Your task to perform on an android device: Open calendar and show me the second week of next month Image 0: 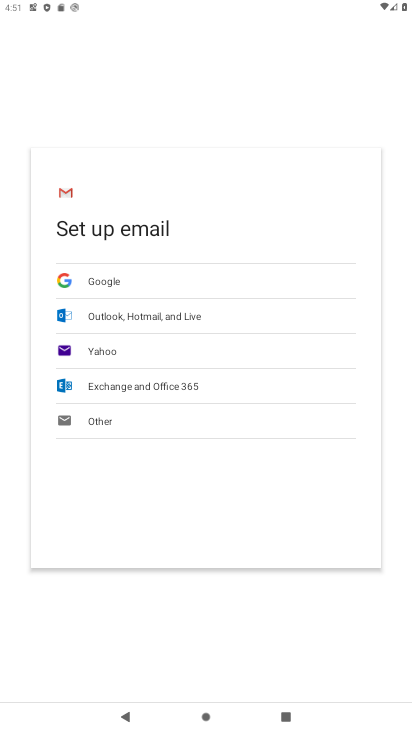
Step 0: press home button
Your task to perform on an android device: Open calendar and show me the second week of next month Image 1: 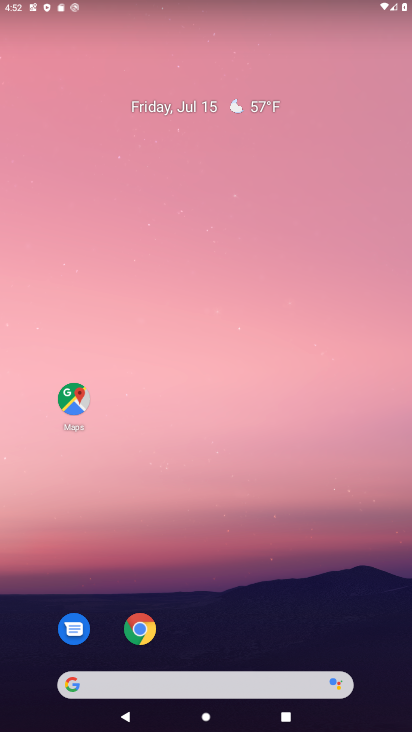
Step 1: drag from (237, 657) to (333, 2)
Your task to perform on an android device: Open calendar and show me the second week of next month Image 2: 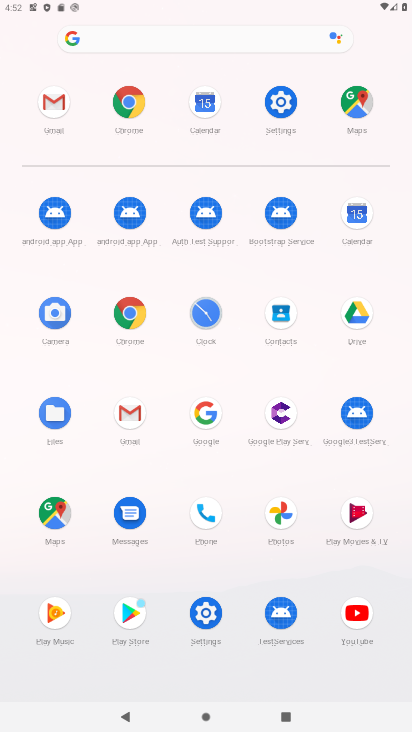
Step 2: click (358, 216)
Your task to perform on an android device: Open calendar and show me the second week of next month Image 3: 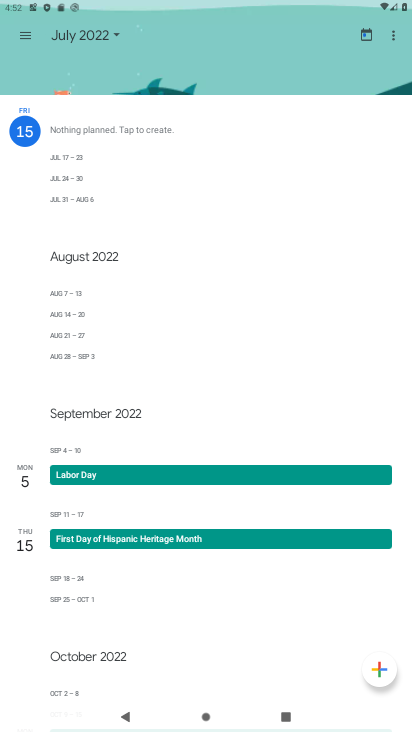
Step 3: click (108, 39)
Your task to perform on an android device: Open calendar and show me the second week of next month Image 4: 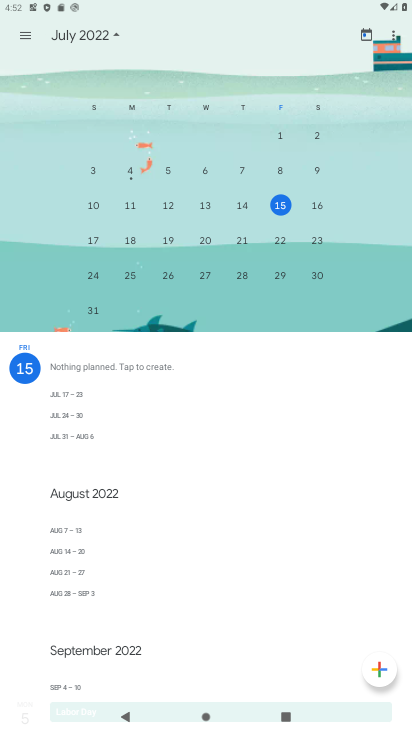
Step 4: drag from (352, 222) to (4, 171)
Your task to perform on an android device: Open calendar and show me the second week of next month Image 5: 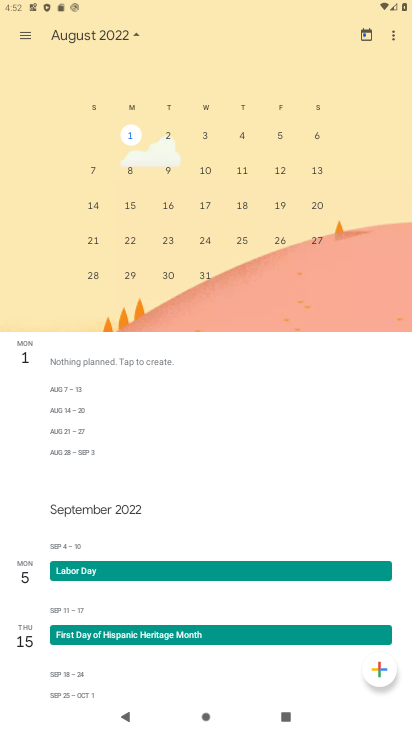
Step 5: click (128, 172)
Your task to perform on an android device: Open calendar and show me the second week of next month Image 6: 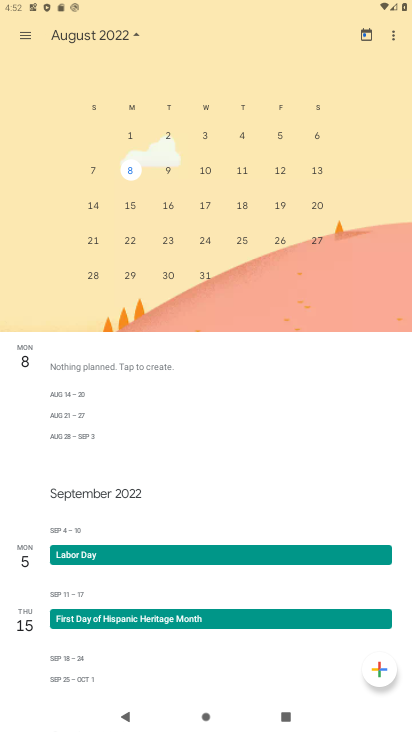
Step 6: click (173, 167)
Your task to perform on an android device: Open calendar and show me the second week of next month Image 7: 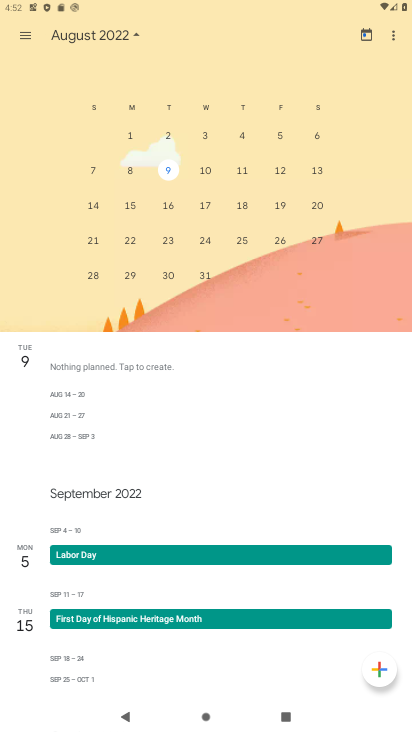
Step 7: click (210, 173)
Your task to perform on an android device: Open calendar and show me the second week of next month Image 8: 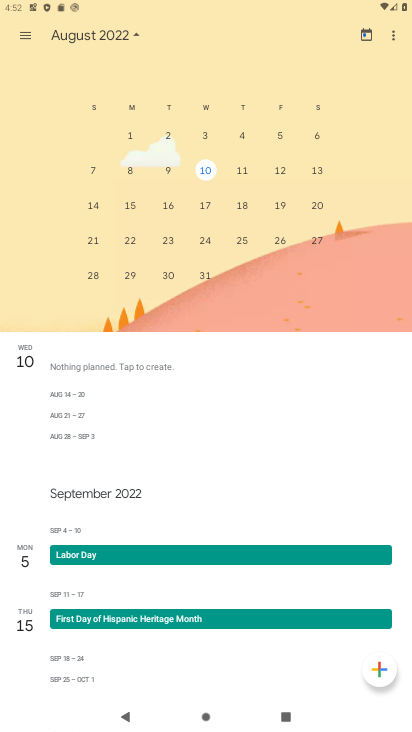
Step 8: click (244, 169)
Your task to perform on an android device: Open calendar and show me the second week of next month Image 9: 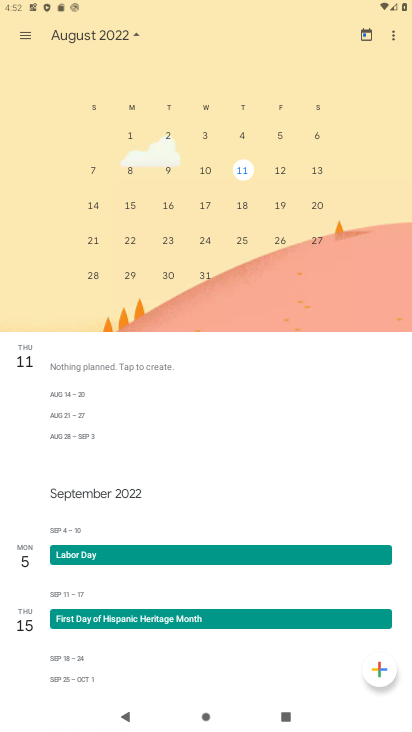
Step 9: click (284, 177)
Your task to perform on an android device: Open calendar and show me the second week of next month Image 10: 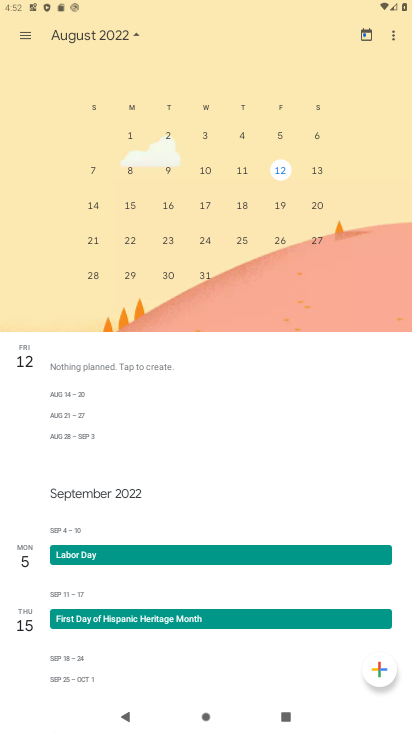
Step 10: click (315, 169)
Your task to perform on an android device: Open calendar and show me the second week of next month Image 11: 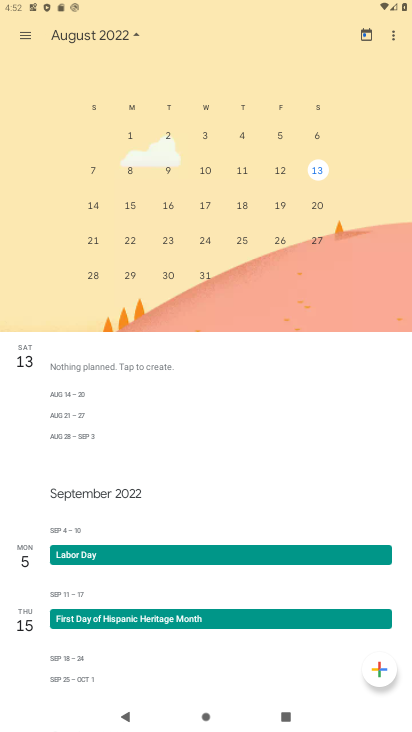
Step 11: click (96, 199)
Your task to perform on an android device: Open calendar and show me the second week of next month Image 12: 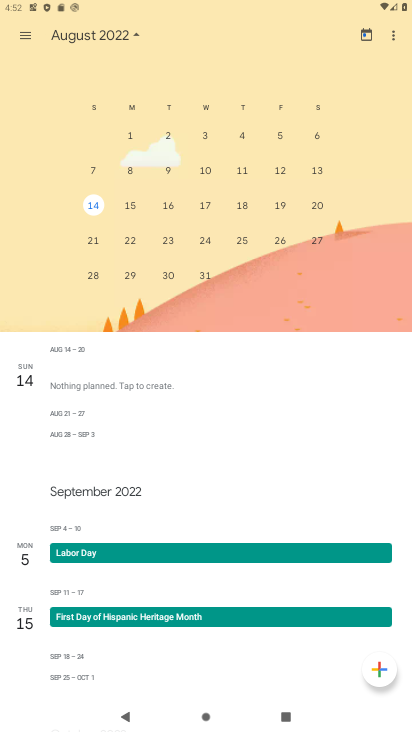
Step 12: task complete